Your task to perform on an android device: Open notification settings Image 0: 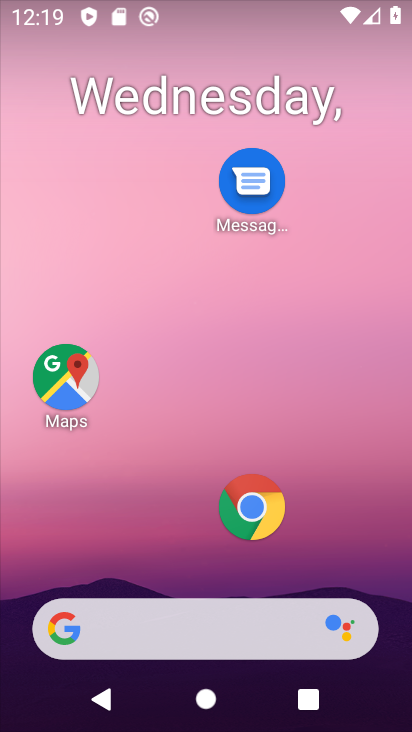
Step 0: drag from (153, 604) to (244, 114)
Your task to perform on an android device: Open notification settings Image 1: 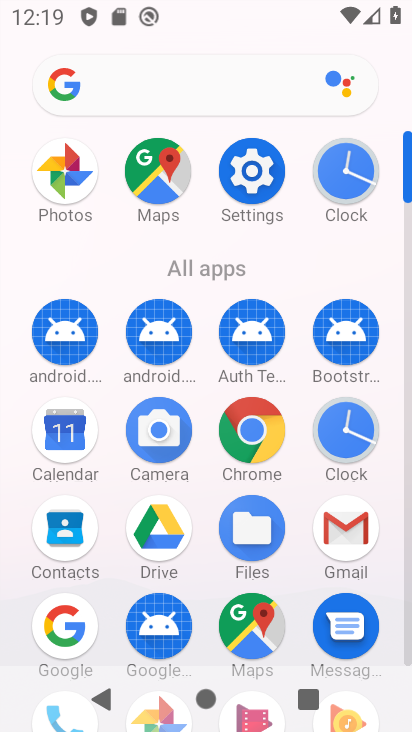
Step 1: drag from (129, 622) to (204, 360)
Your task to perform on an android device: Open notification settings Image 2: 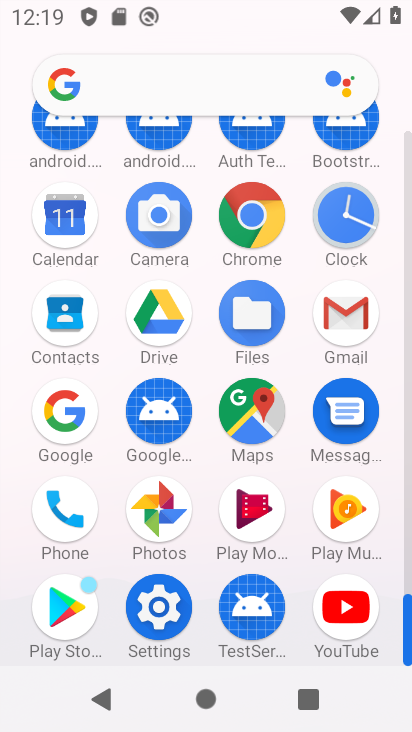
Step 2: click (163, 614)
Your task to perform on an android device: Open notification settings Image 3: 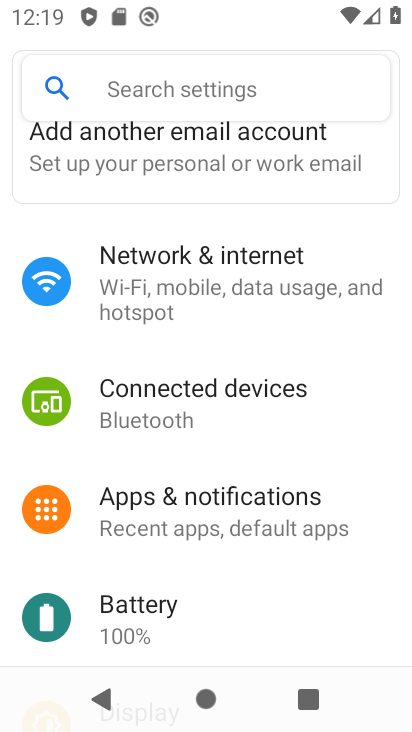
Step 3: click (246, 516)
Your task to perform on an android device: Open notification settings Image 4: 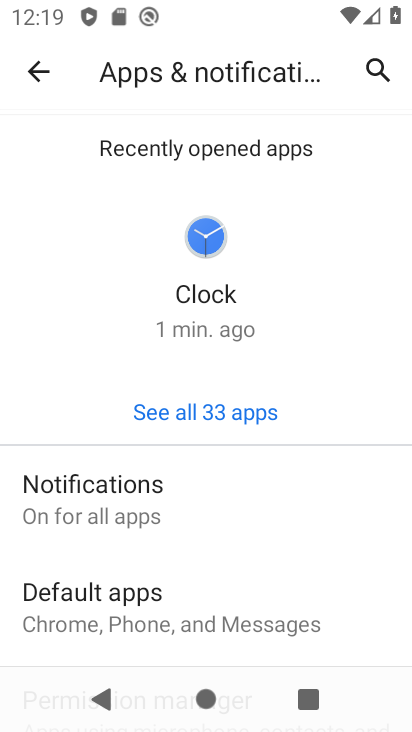
Step 4: click (194, 497)
Your task to perform on an android device: Open notification settings Image 5: 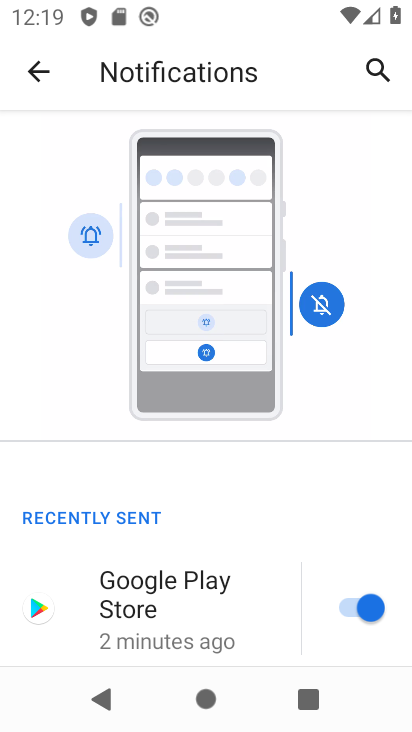
Step 5: task complete